Your task to perform on an android device: open app "Flipkart Online Shopping App" (install if not already installed) Image 0: 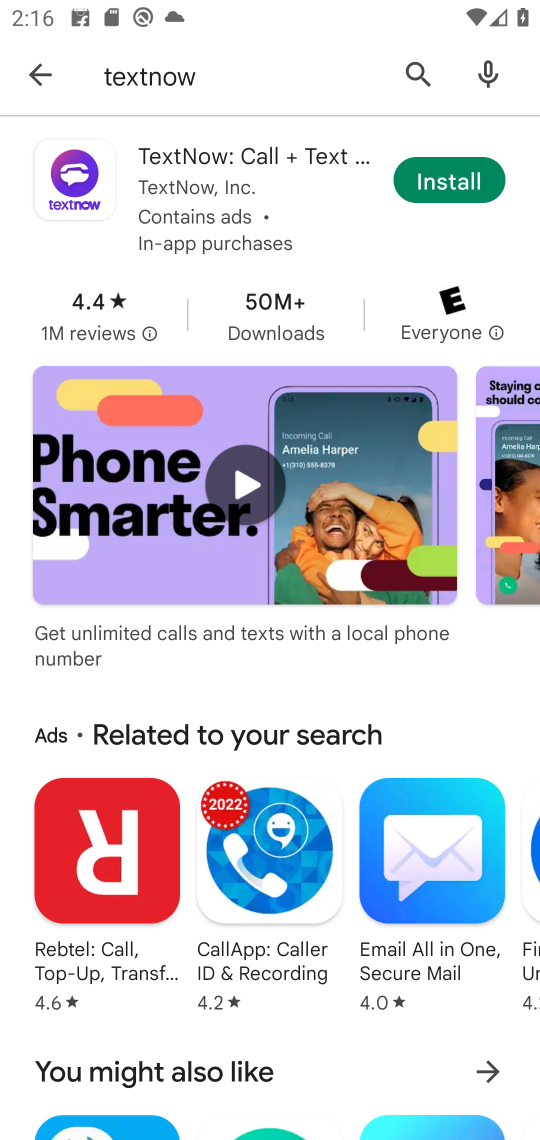
Step 0: press home button
Your task to perform on an android device: open app "Flipkart Online Shopping App" (install if not already installed) Image 1: 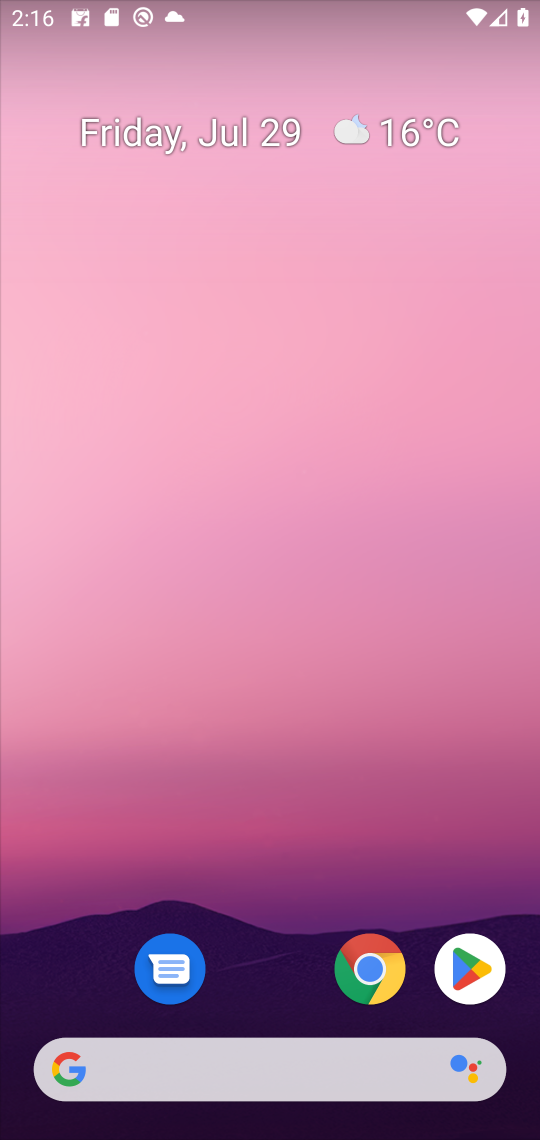
Step 1: click (448, 983)
Your task to perform on an android device: open app "Flipkart Online Shopping App" (install if not already installed) Image 2: 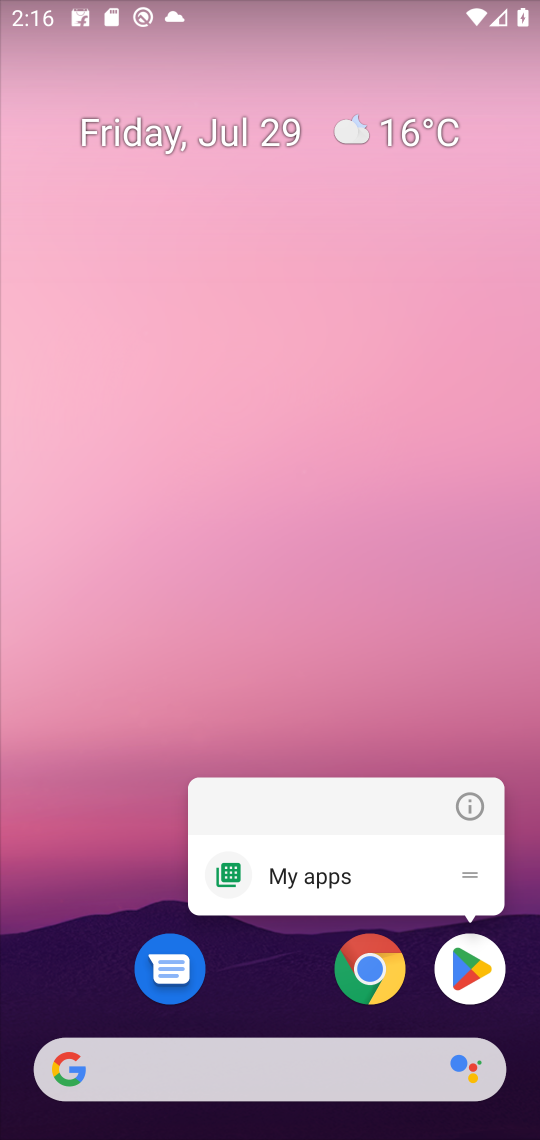
Step 2: click (455, 994)
Your task to perform on an android device: open app "Flipkart Online Shopping App" (install if not already installed) Image 3: 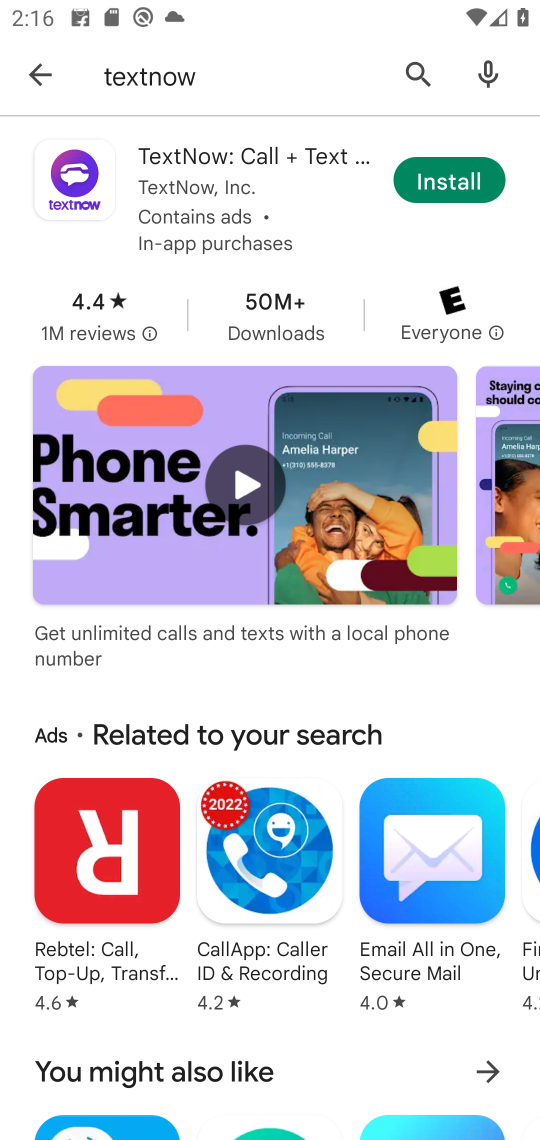
Step 3: click (419, 76)
Your task to perform on an android device: open app "Flipkart Online Shopping App" (install if not already installed) Image 4: 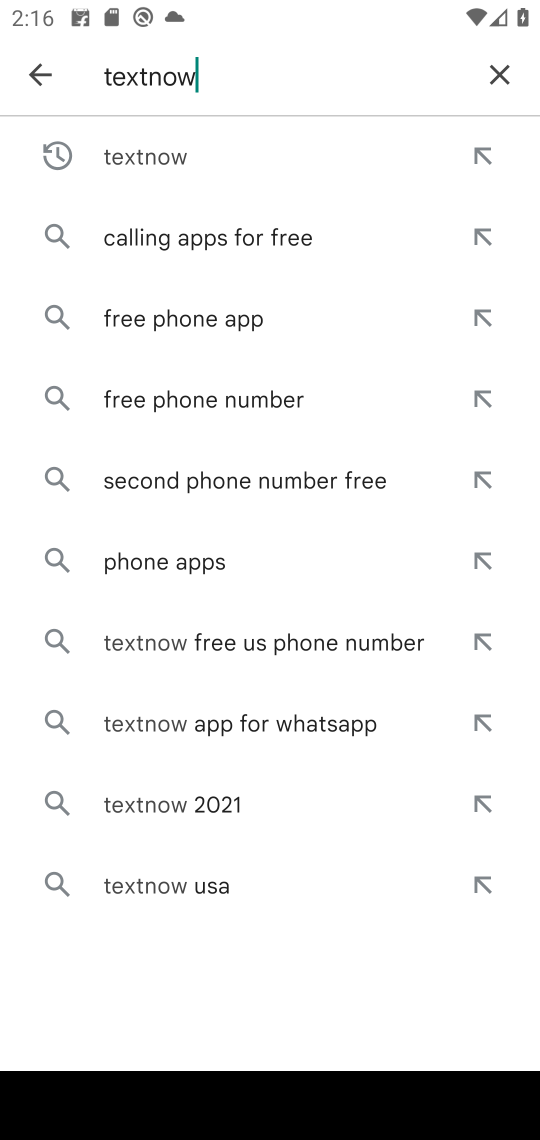
Step 4: click (495, 83)
Your task to perform on an android device: open app "Flipkart Online Shopping App" (install if not already installed) Image 5: 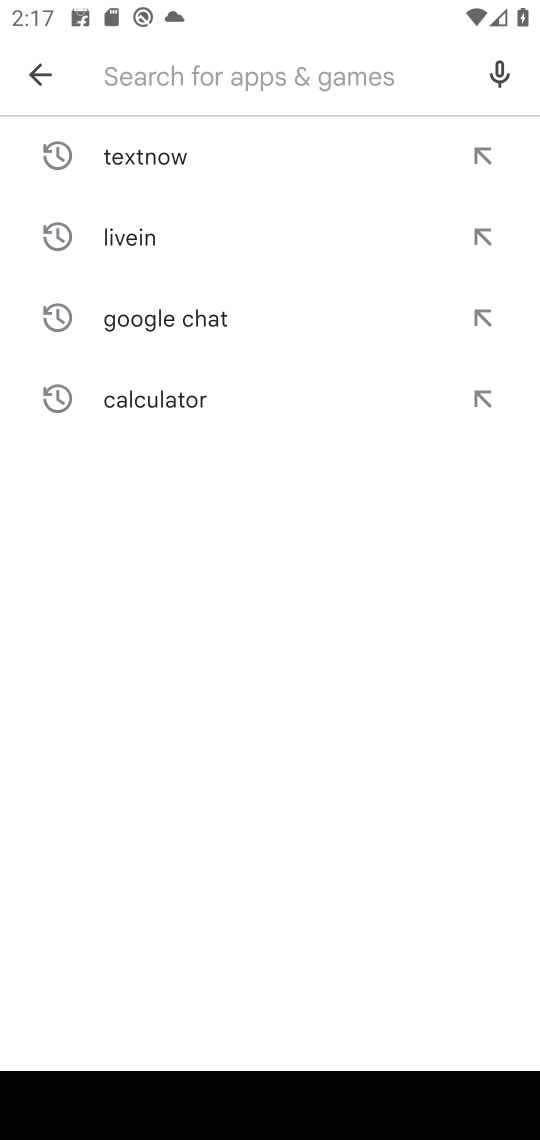
Step 5: type "flipkart"
Your task to perform on an android device: open app "Flipkart Online Shopping App" (install if not already installed) Image 6: 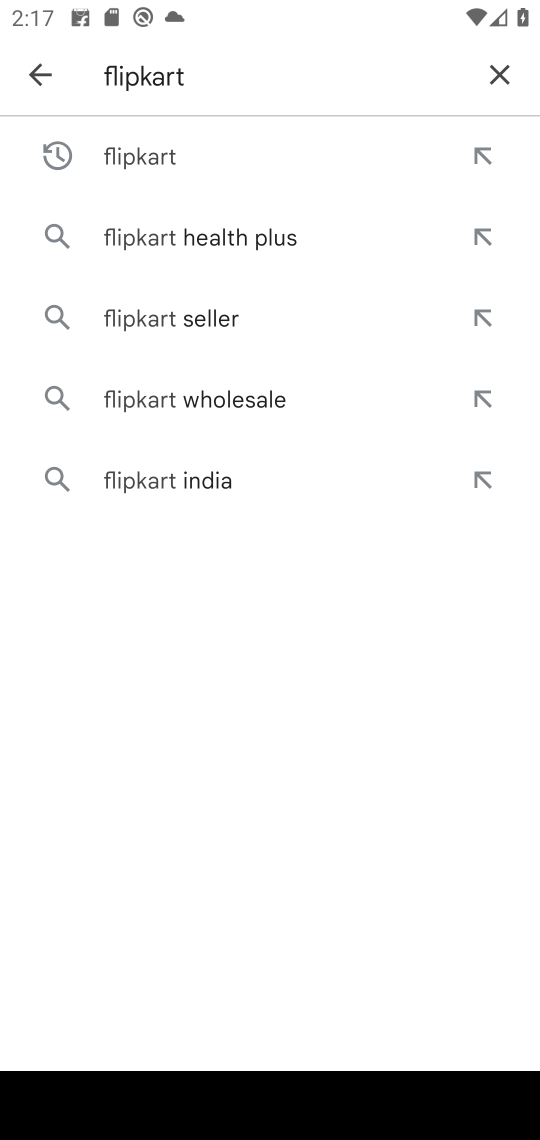
Step 6: click (164, 162)
Your task to perform on an android device: open app "Flipkart Online Shopping App" (install if not already installed) Image 7: 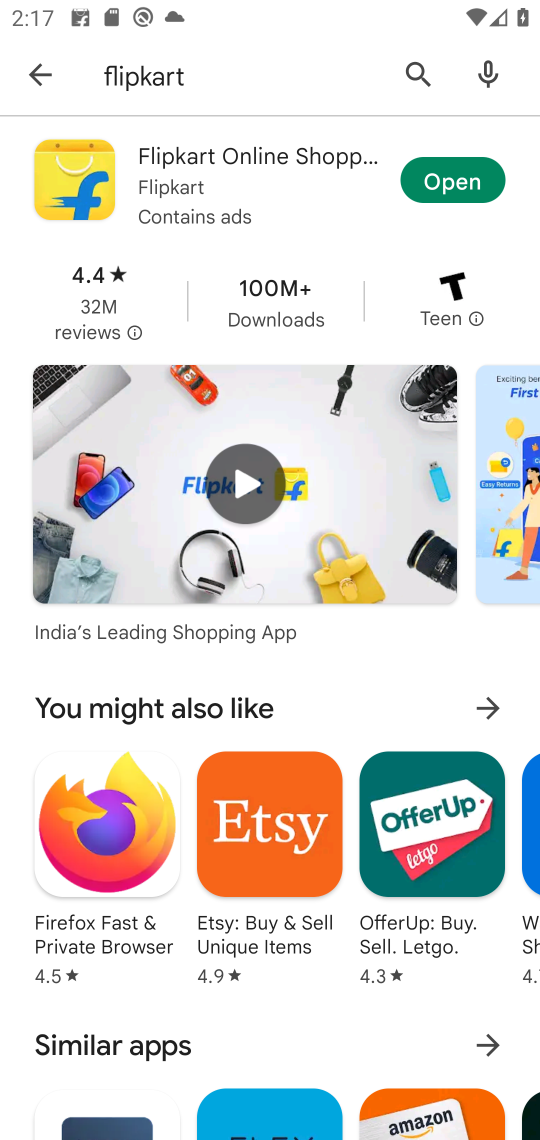
Step 7: click (439, 191)
Your task to perform on an android device: open app "Flipkart Online Shopping App" (install if not already installed) Image 8: 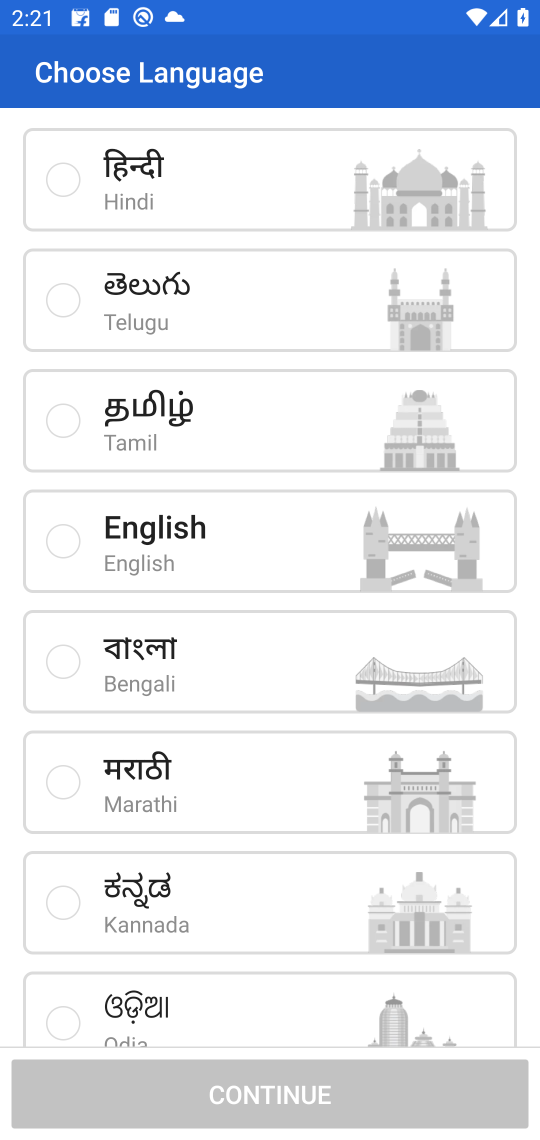
Step 8: task complete